Your task to perform on an android device: open a new tab in the chrome app Image 0: 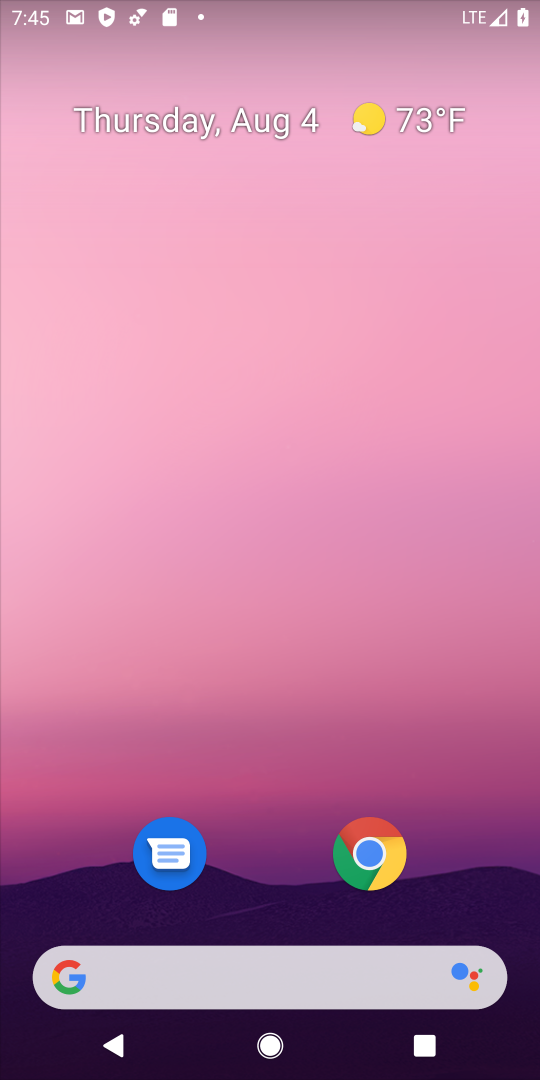
Step 0: click (365, 858)
Your task to perform on an android device: open a new tab in the chrome app Image 1: 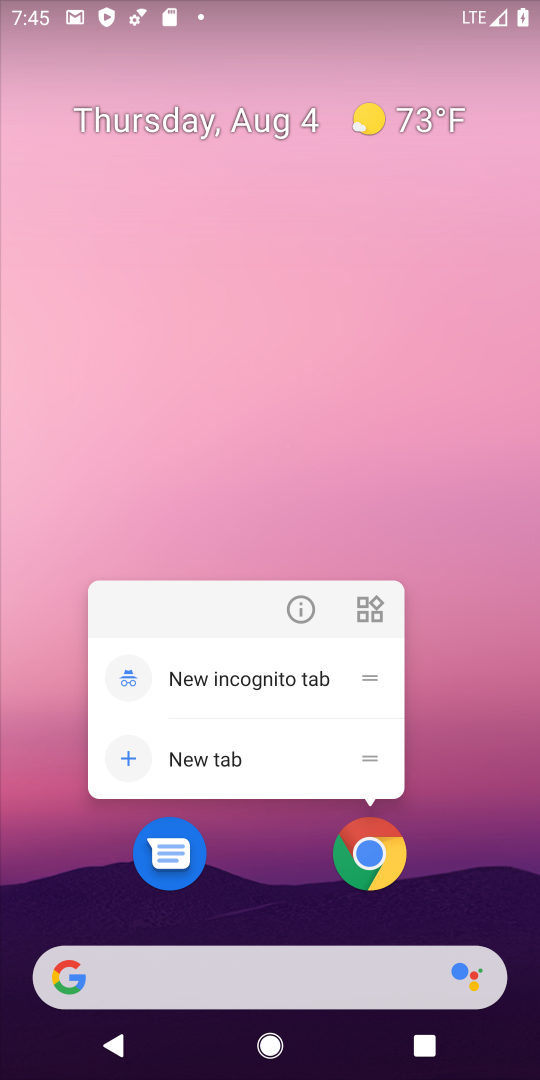
Step 1: click (365, 858)
Your task to perform on an android device: open a new tab in the chrome app Image 2: 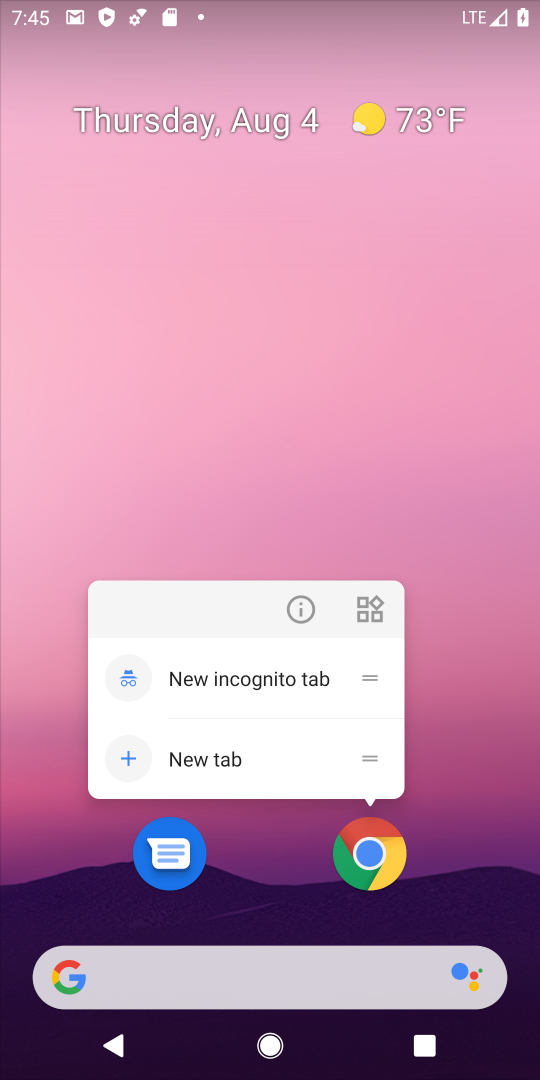
Step 2: click (378, 877)
Your task to perform on an android device: open a new tab in the chrome app Image 3: 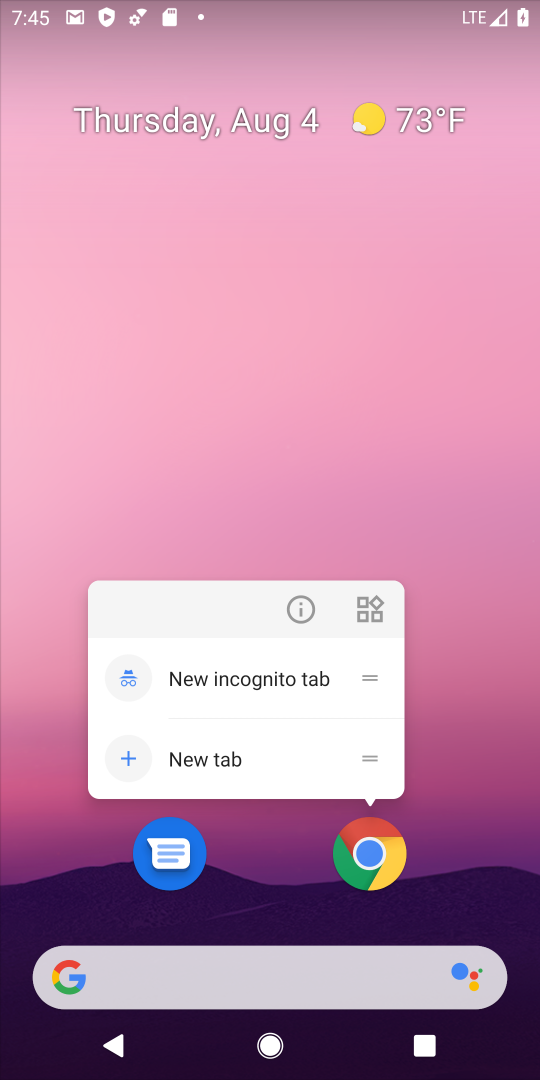
Step 3: click (378, 877)
Your task to perform on an android device: open a new tab in the chrome app Image 4: 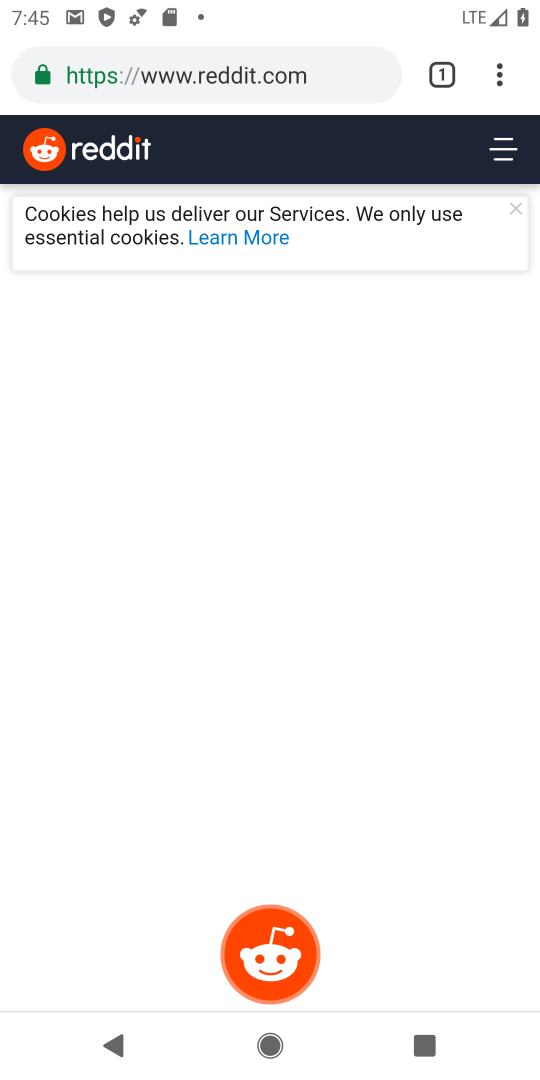
Step 4: press home button
Your task to perform on an android device: open a new tab in the chrome app Image 5: 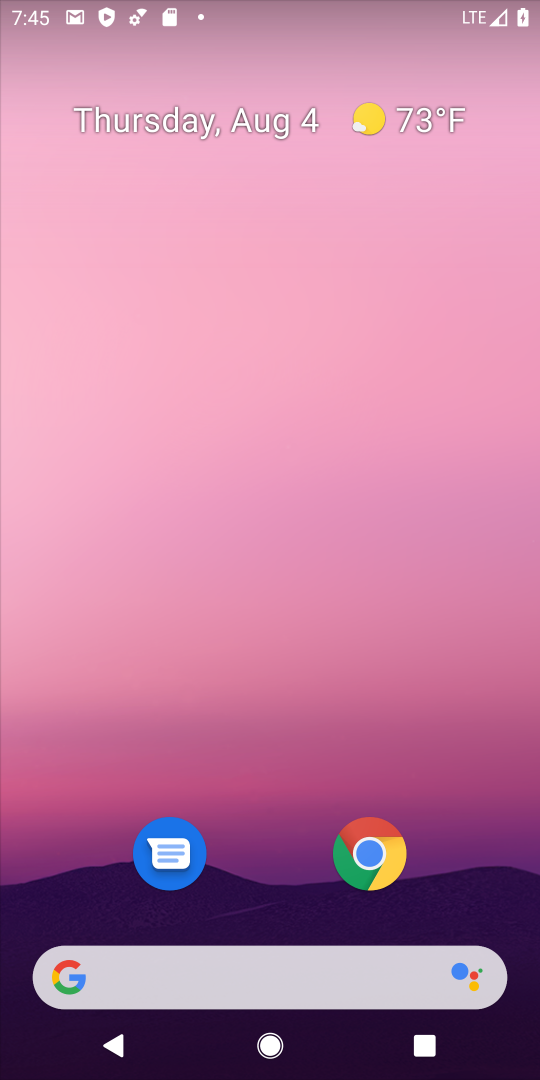
Step 5: click (349, 875)
Your task to perform on an android device: open a new tab in the chrome app Image 6: 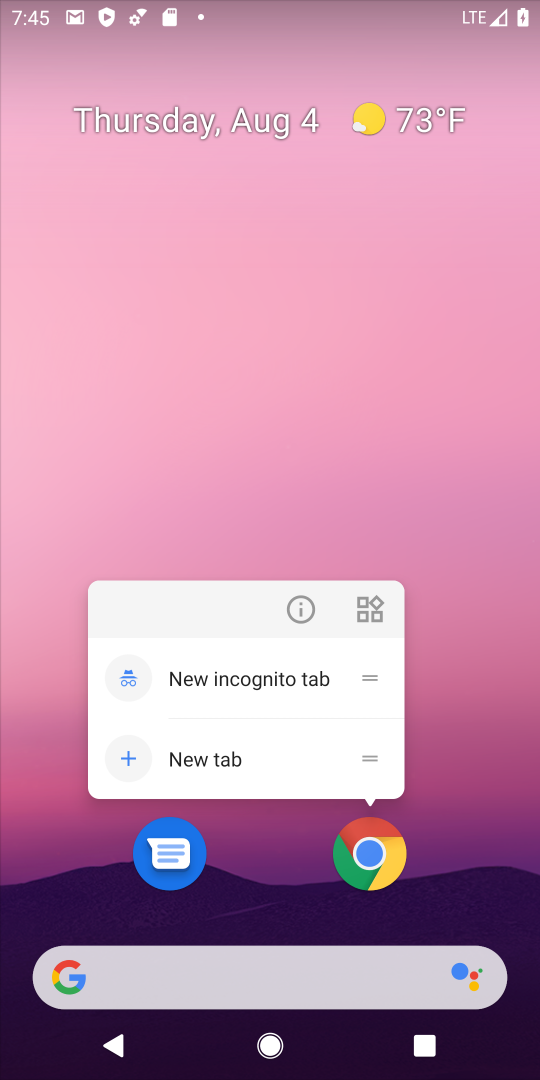
Step 6: click (369, 866)
Your task to perform on an android device: open a new tab in the chrome app Image 7: 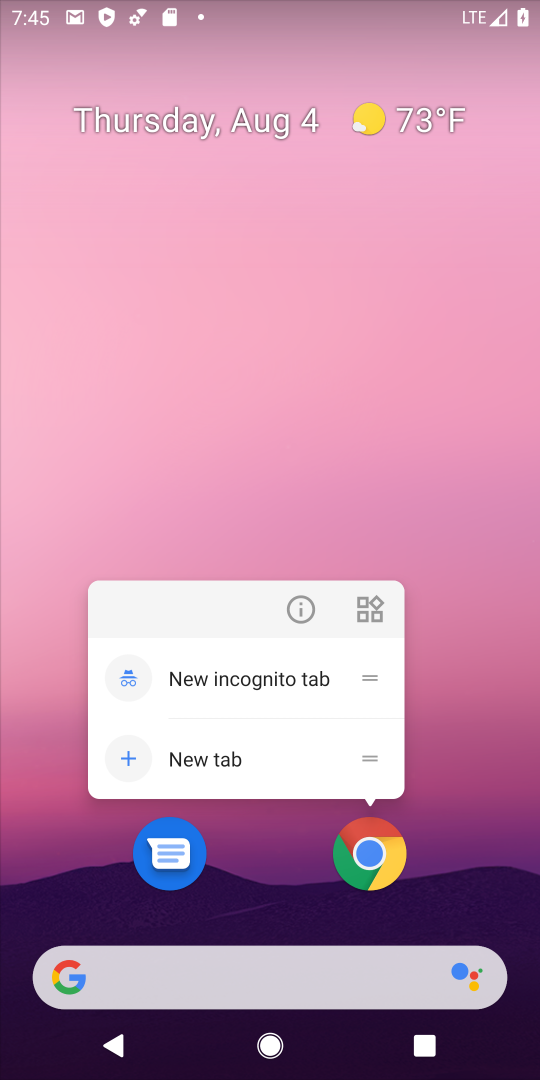
Step 7: click (371, 866)
Your task to perform on an android device: open a new tab in the chrome app Image 8: 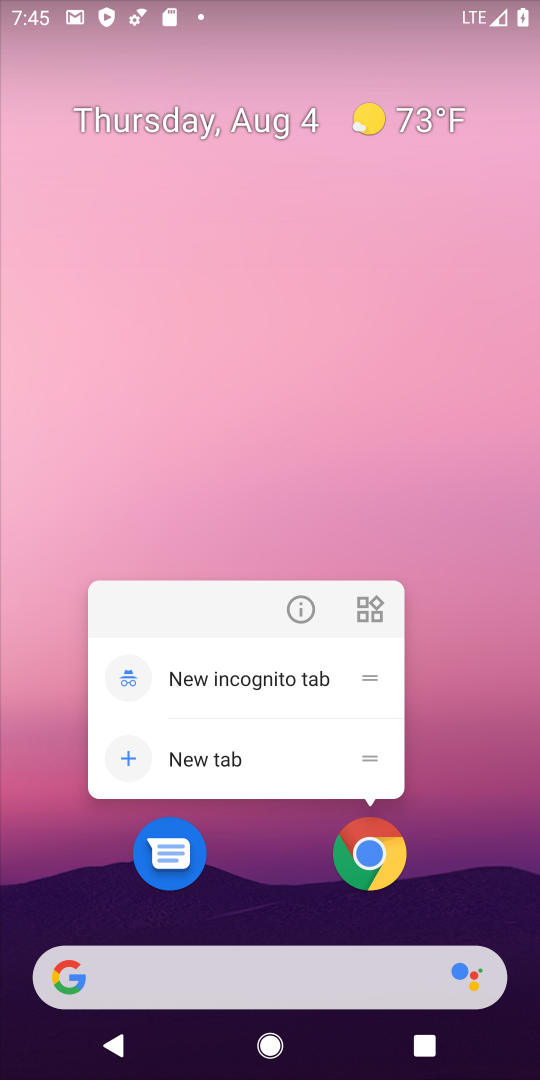
Step 8: click (368, 837)
Your task to perform on an android device: open a new tab in the chrome app Image 9: 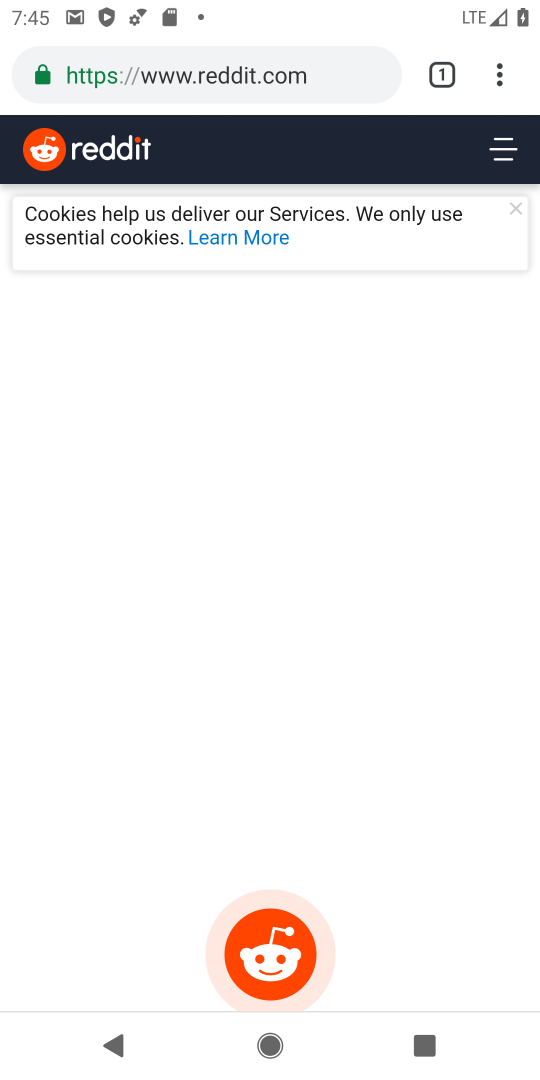
Step 9: click (497, 79)
Your task to perform on an android device: open a new tab in the chrome app Image 10: 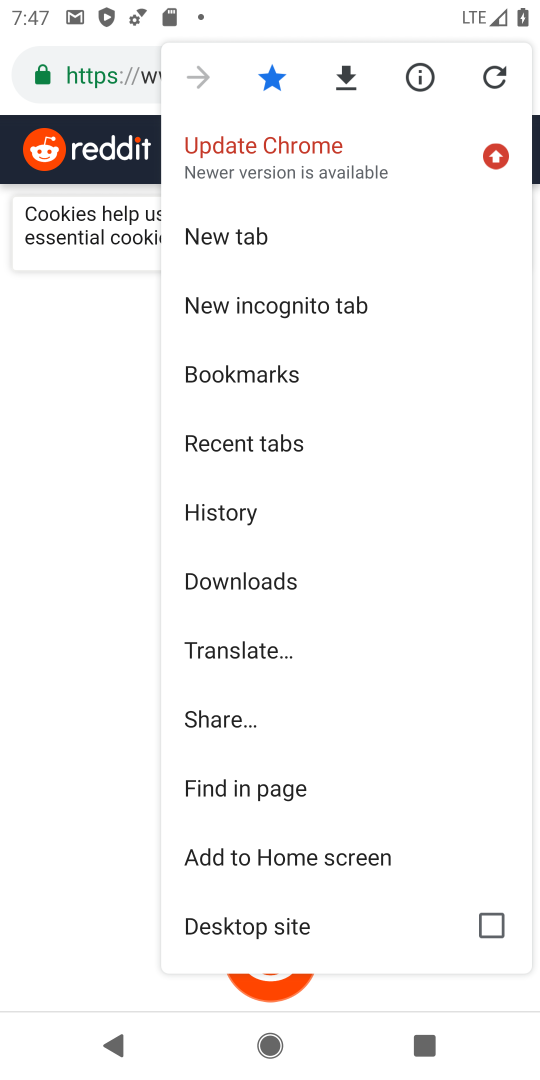
Step 10: click (280, 238)
Your task to perform on an android device: open a new tab in the chrome app Image 11: 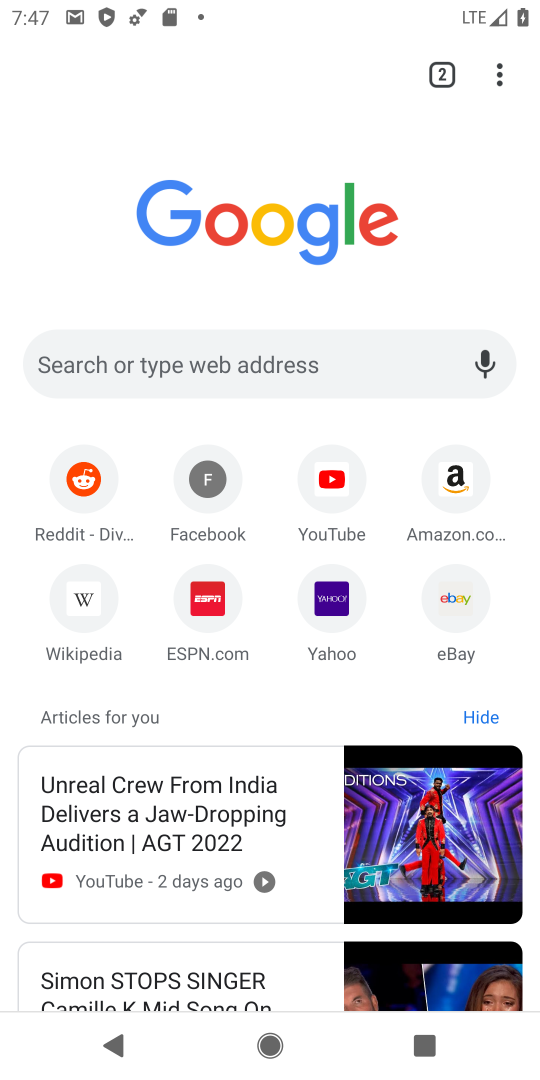
Step 11: task complete